Your task to perform on an android device: make emails show in primary in the gmail app Image 0: 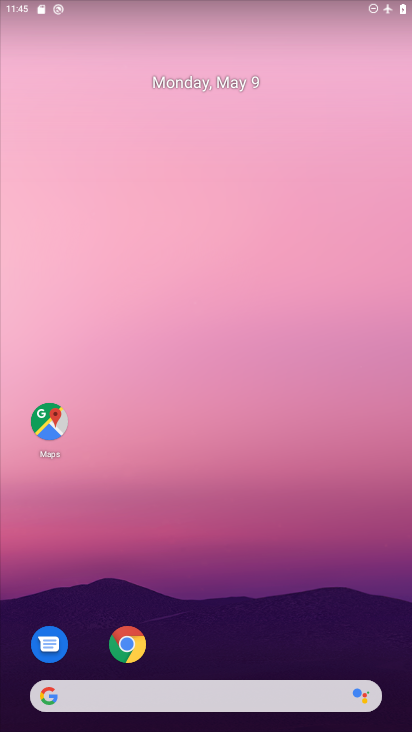
Step 0: drag from (210, 635) to (158, 186)
Your task to perform on an android device: make emails show in primary in the gmail app Image 1: 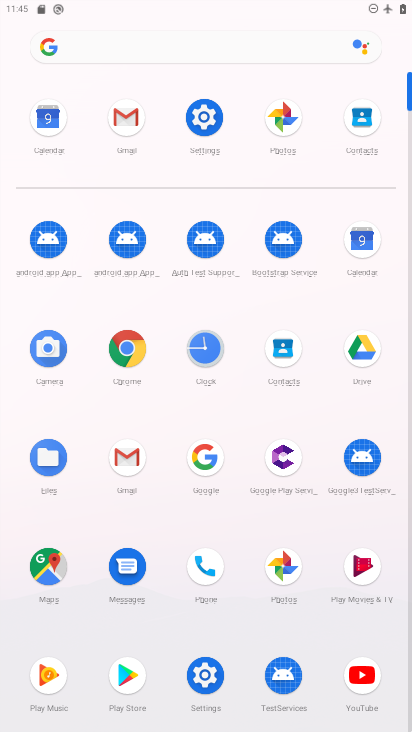
Step 1: click (134, 142)
Your task to perform on an android device: make emails show in primary in the gmail app Image 2: 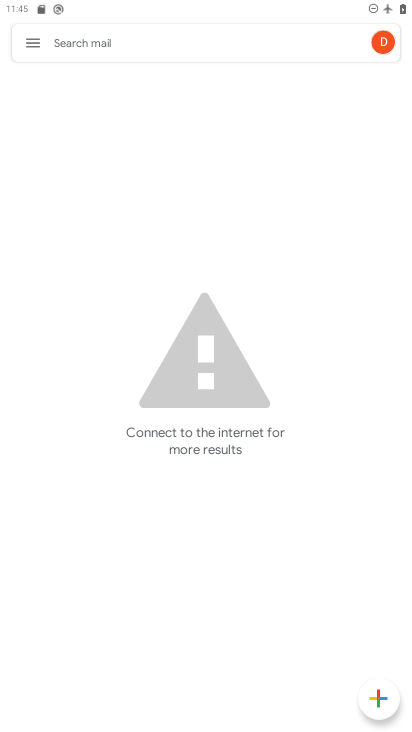
Step 2: click (29, 29)
Your task to perform on an android device: make emails show in primary in the gmail app Image 3: 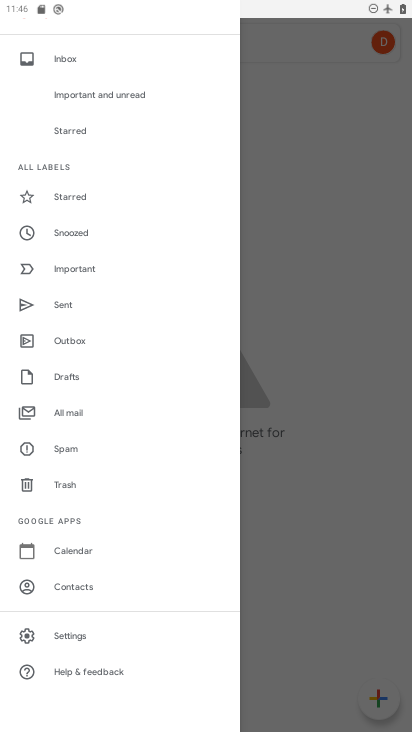
Step 3: click (95, 639)
Your task to perform on an android device: make emails show in primary in the gmail app Image 4: 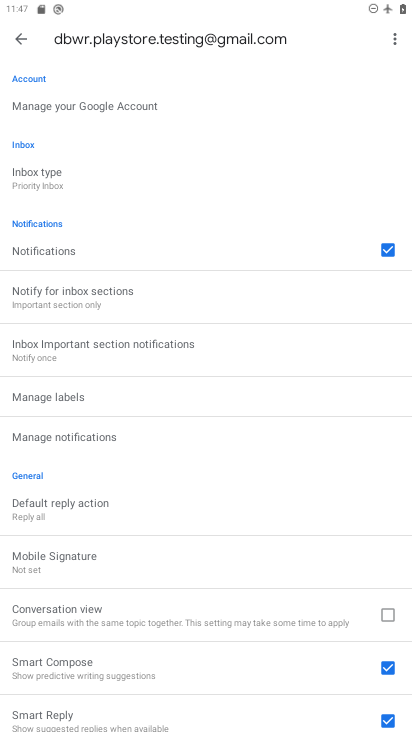
Step 4: click (88, 193)
Your task to perform on an android device: make emails show in primary in the gmail app Image 5: 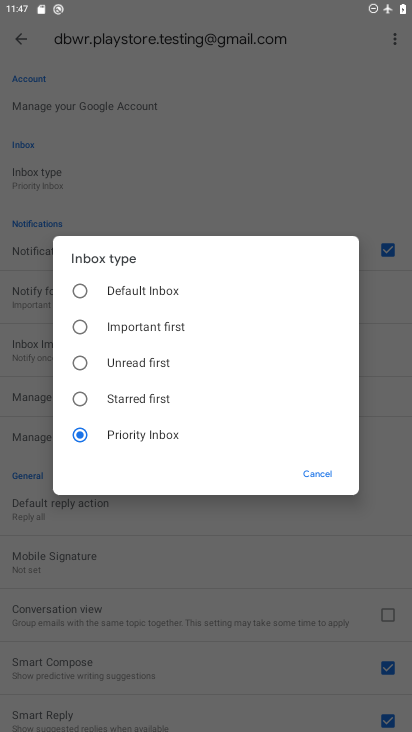
Step 5: click (120, 293)
Your task to perform on an android device: make emails show in primary in the gmail app Image 6: 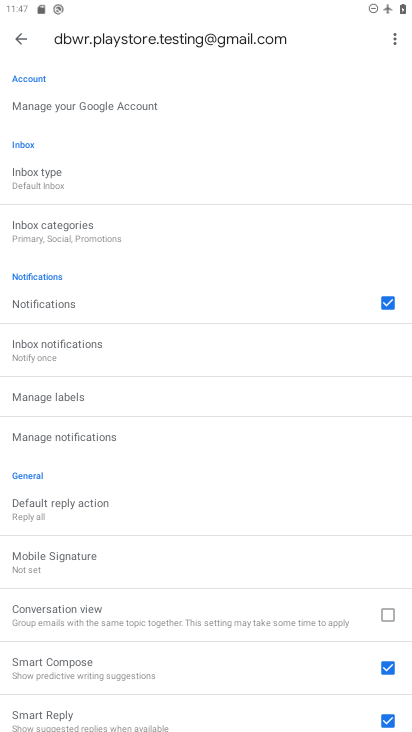
Step 6: click (53, 227)
Your task to perform on an android device: make emails show in primary in the gmail app Image 7: 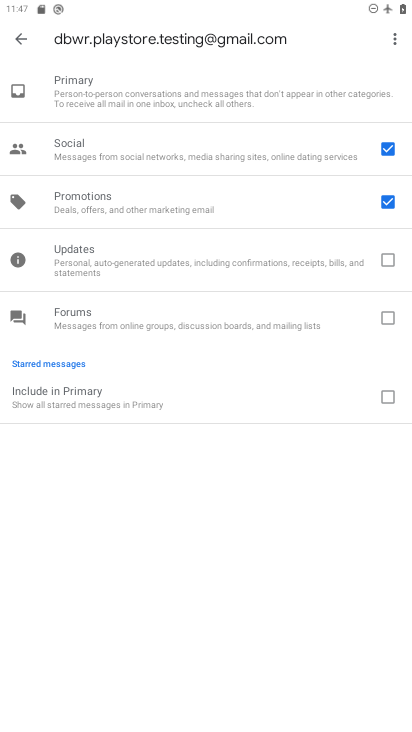
Step 7: task complete